Your task to perform on an android device: Search for sushi restaurants on Maps Image 0: 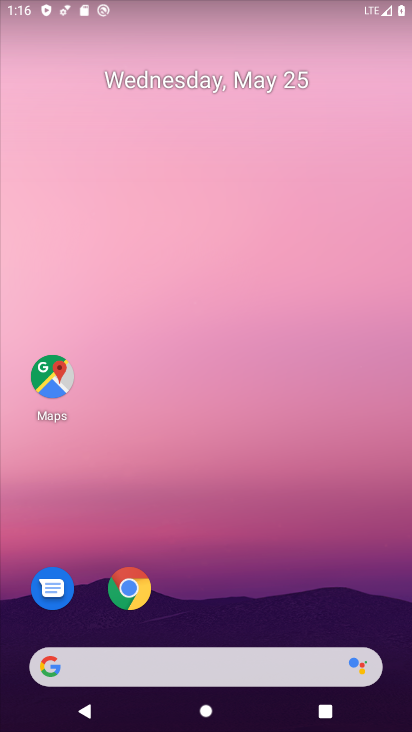
Step 0: click (49, 373)
Your task to perform on an android device: Search for sushi restaurants on Maps Image 1: 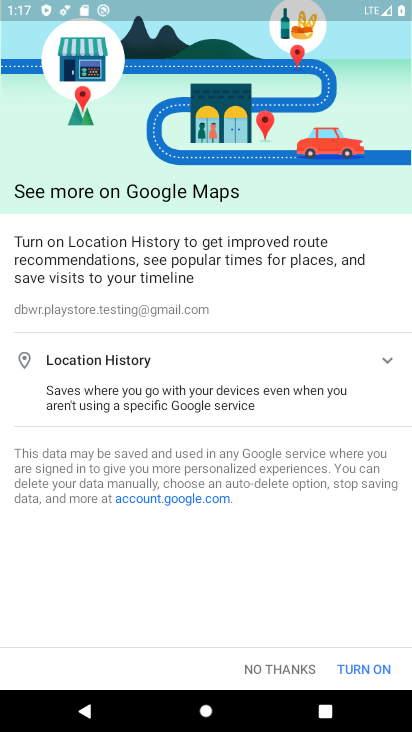
Step 1: click (243, 670)
Your task to perform on an android device: Search for sushi restaurants on Maps Image 2: 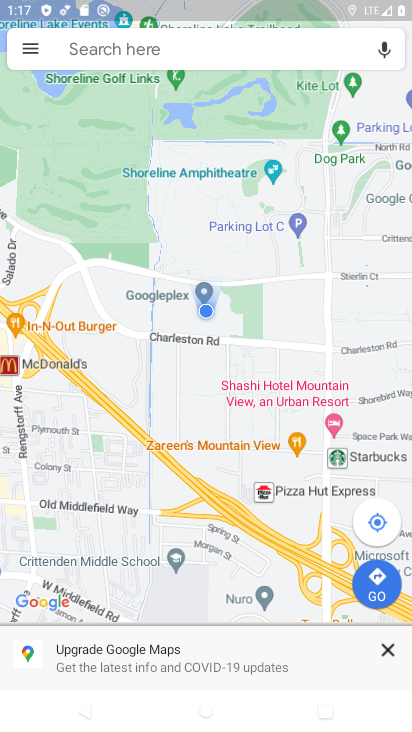
Step 2: click (72, 55)
Your task to perform on an android device: Search for sushi restaurants on Maps Image 3: 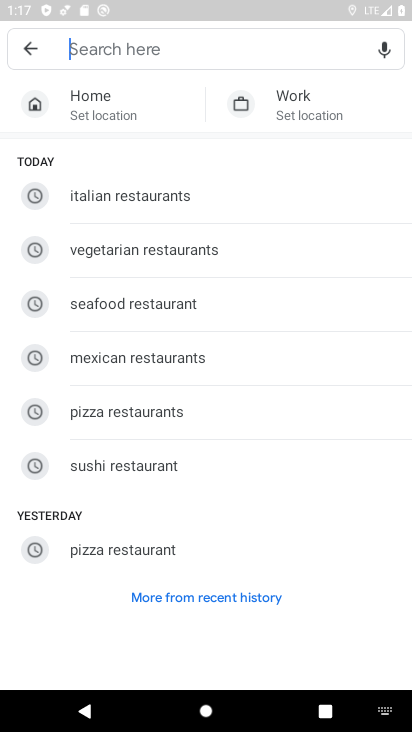
Step 3: type "sushi restaurants "
Your task to perform on an android device: Search for sushi restaurants on Maps Image 4: 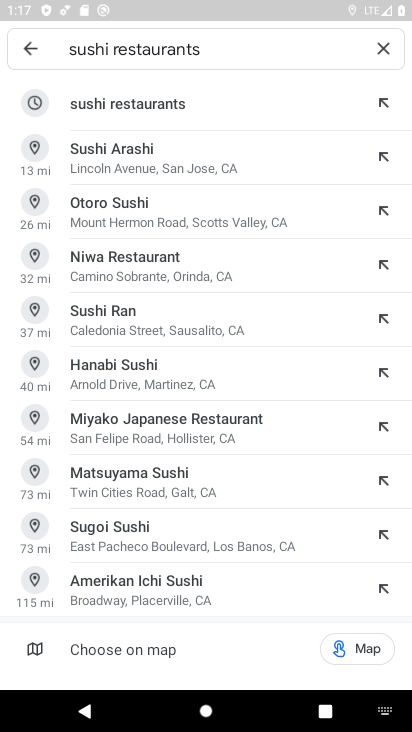
Step 4: click (117, 105)
Your task to perform on an android device: Search for sushi restaurants on Maps Image 5: 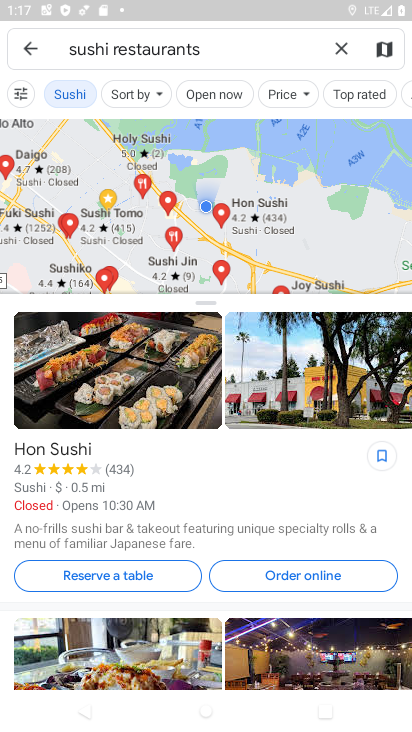
Step 5: task complete